Your task to perform on an android device: Open Google Chrome and click the shortcut for Amazon.com Image 0: 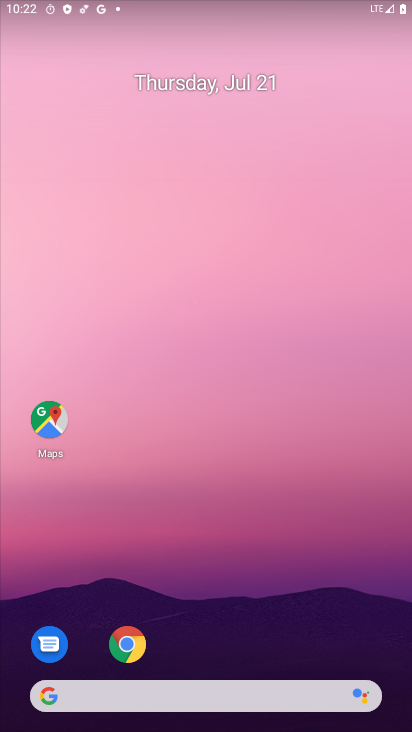
Step 0: press home button
Your task to perform on an android device: Open Google Chrome and click the shortcut for Amazon.com Image 1: 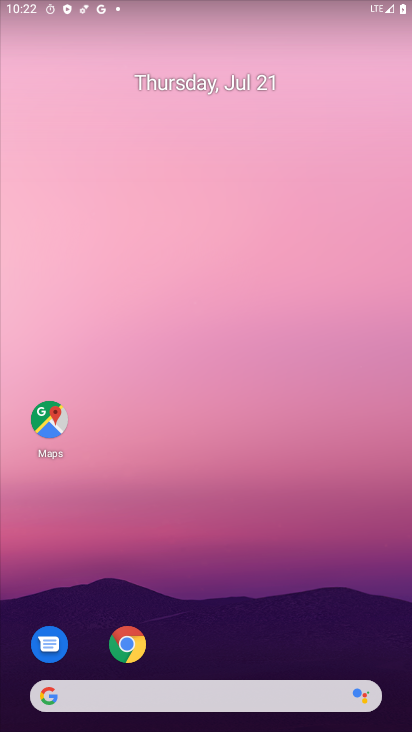
Step 1: click (123, 637)
Your task to perform on an android device: Open Google Chrome and click the shortcut for Amazon.com Image 2: 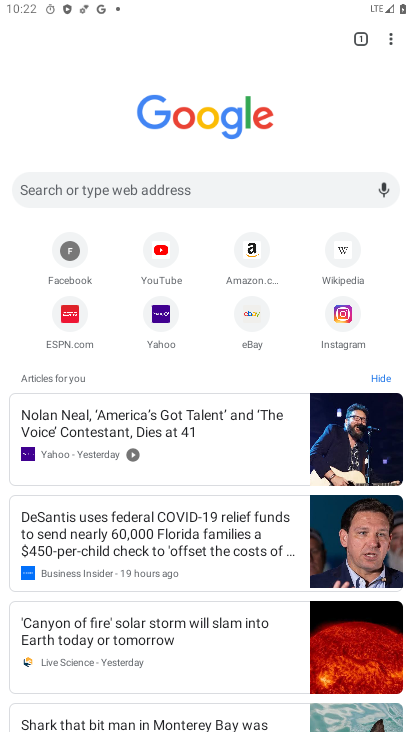
Step 2: click (249, 245)
Your task to perform on an android device: Open Google Chrome and click the shortcut for Amazon.com Image 3: 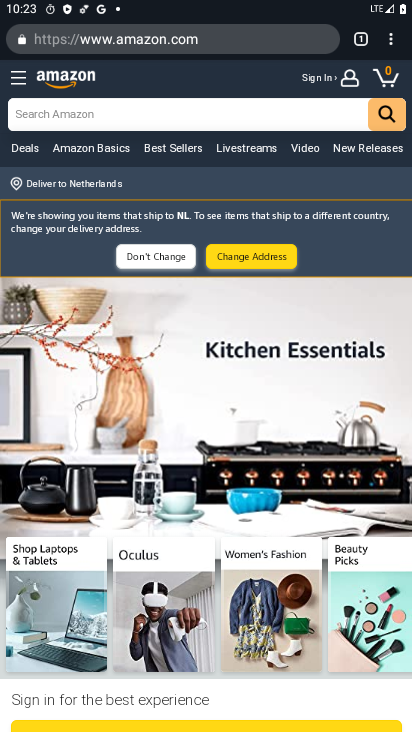
Step 3: task complete